Your task to perform on an android device: Search for dell alienware on amazon.com, select the first entry, and add it to the cart. Image 0: 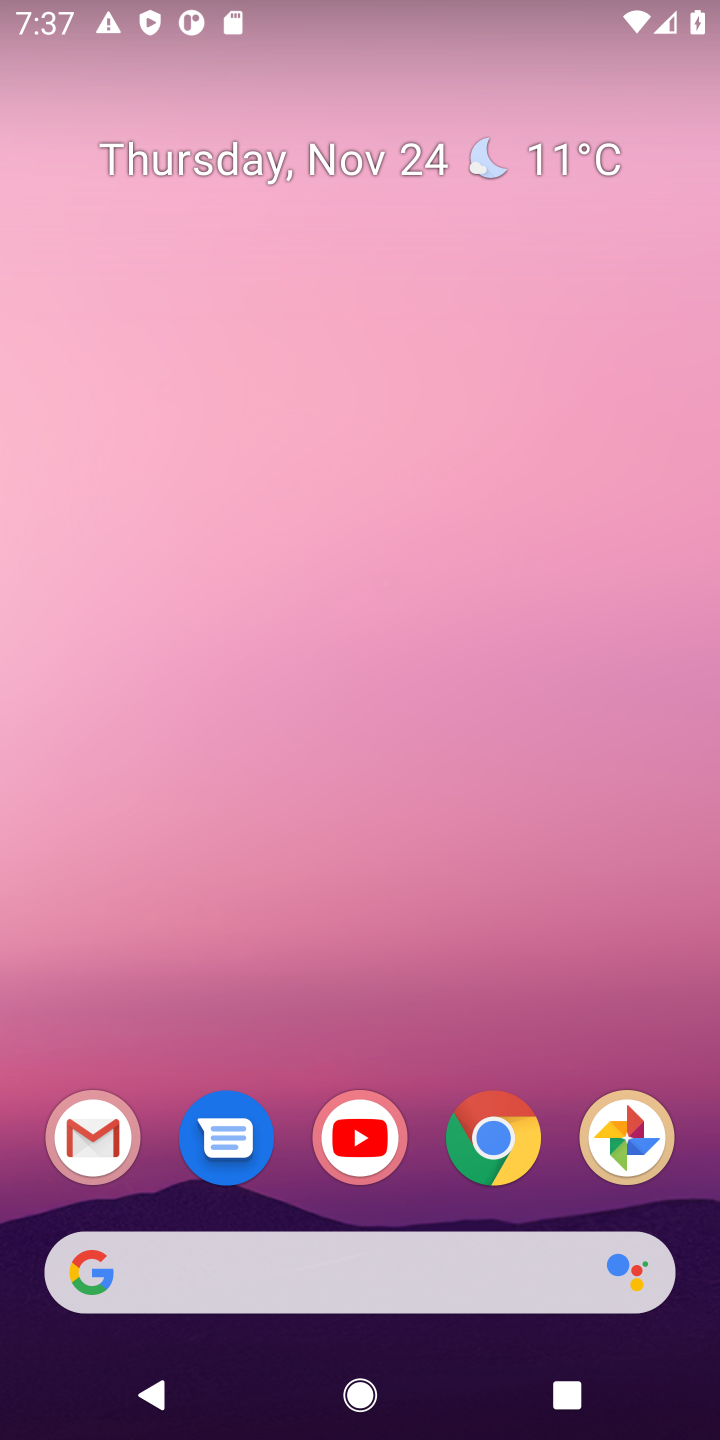
Step 0: click (395, 1258)
Your task to perform on an android device: Search for dell alienware on amazon.com, select the first entry, and add it to the cart. Image 1: 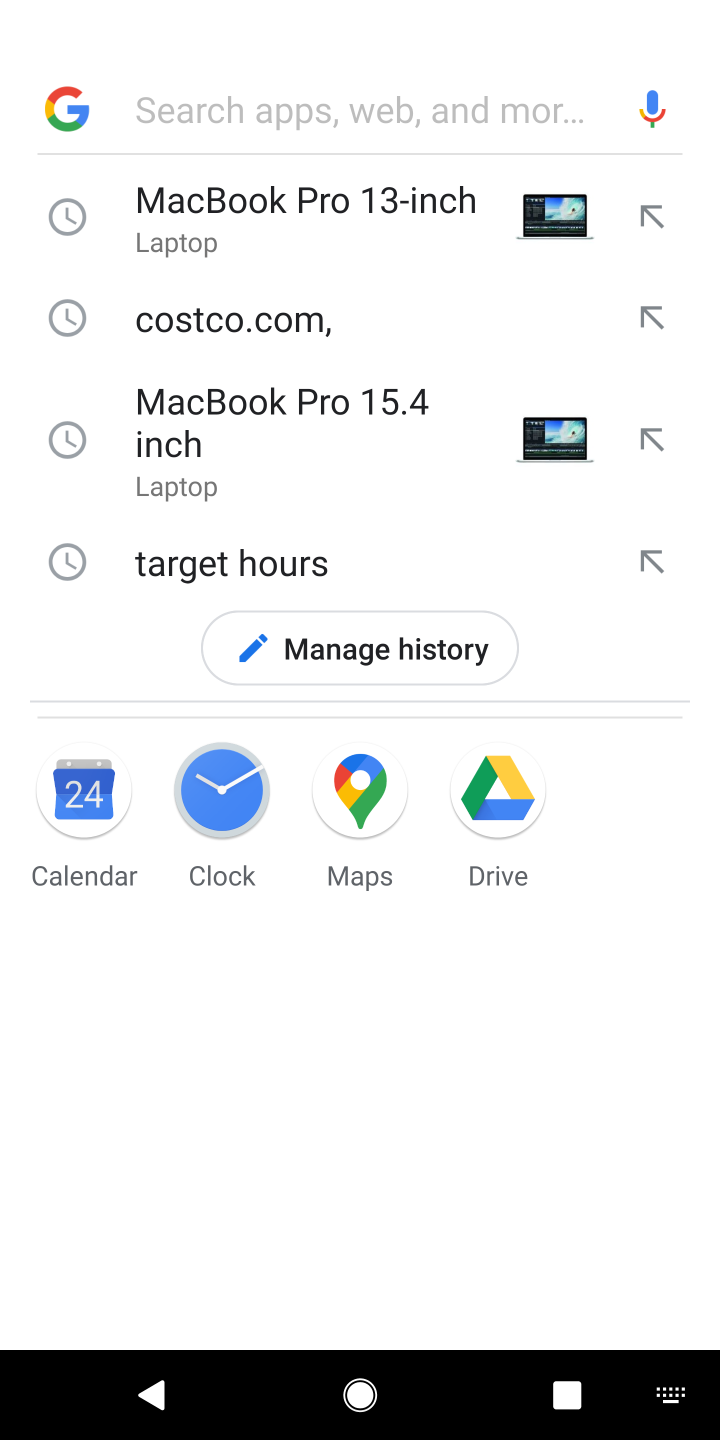
Step 1: type "amazon.com,"
Your task to perform on an android device: Search for dell alienware on amazon.com, select the first entry, and add it to the cart. Image 2: 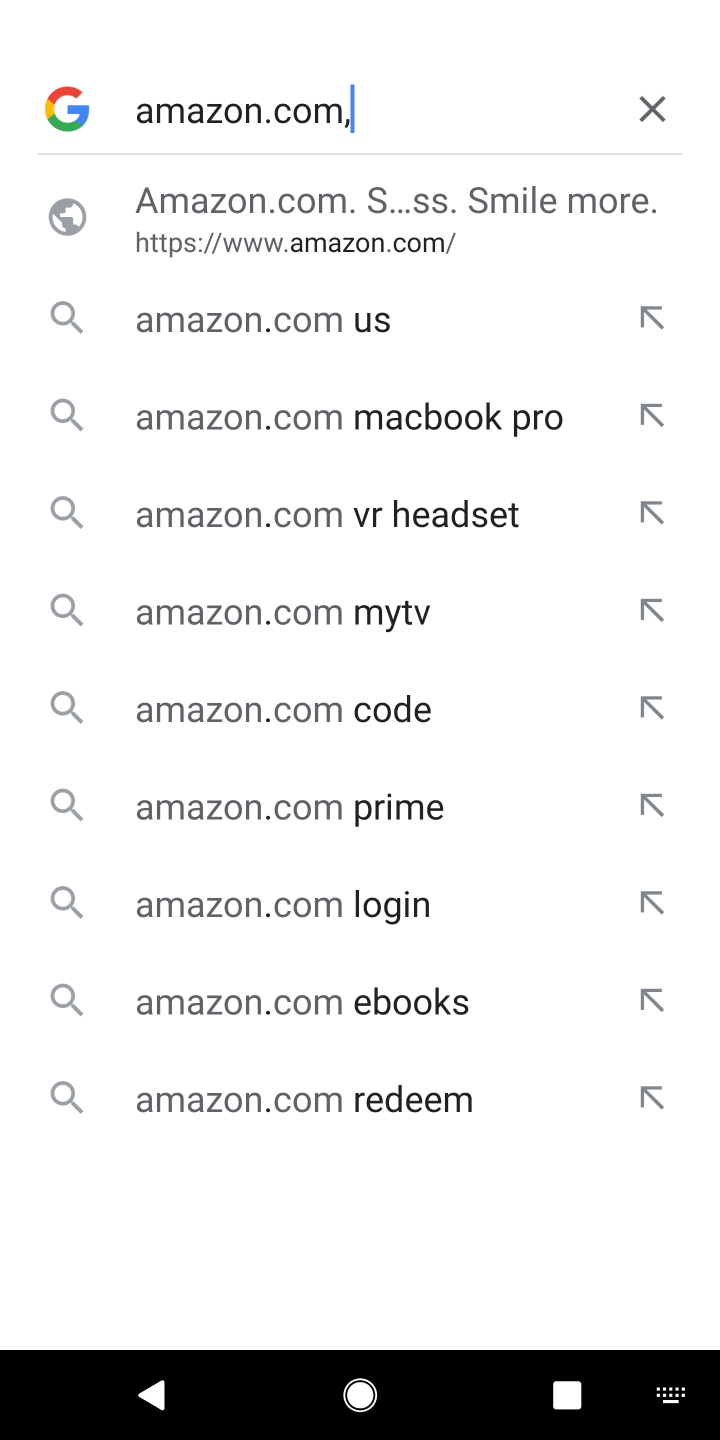
Step 2: click (355, 204)
Your task to perform on an android device: Search for dell alienware on amazon.com, select the first entry, and add it to the cart. Image 3: 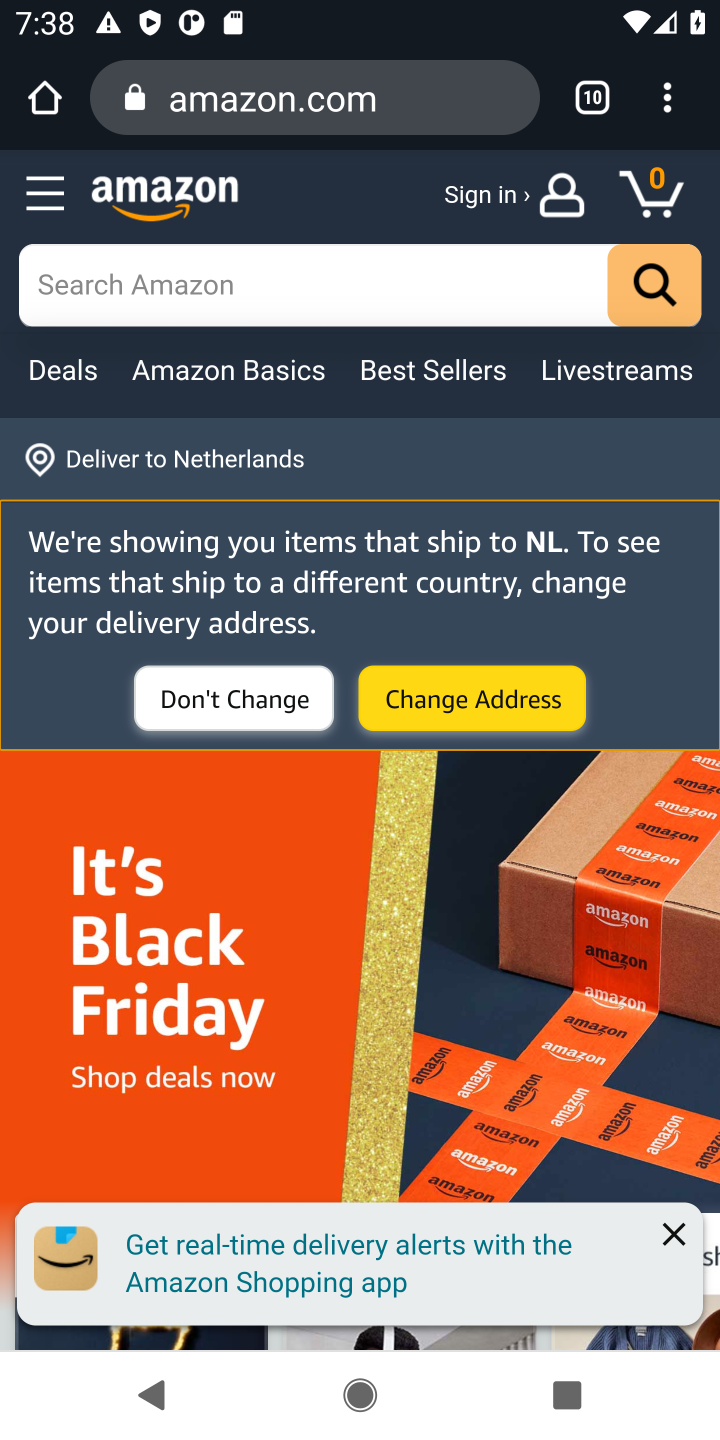
Step 3: click (294, 291)
Your task to perform on an android device: Search for dell alienware on amazon.com, select the first entry, and add it to the cart. Image 4: 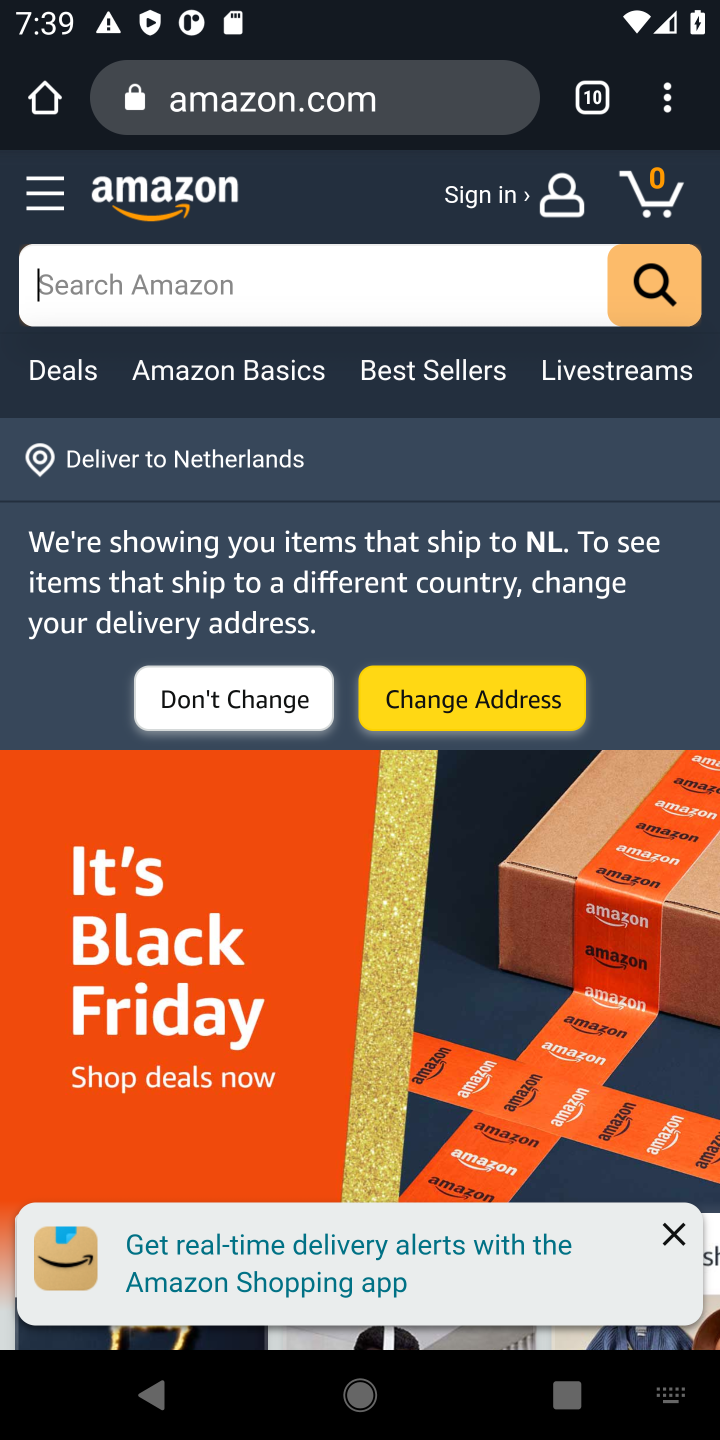
Step 4: type " dell alienware"
Your task to perform on an android device: Search for dell alienware on amazon.com, select the first entry, and add it to the cart. Image 5: 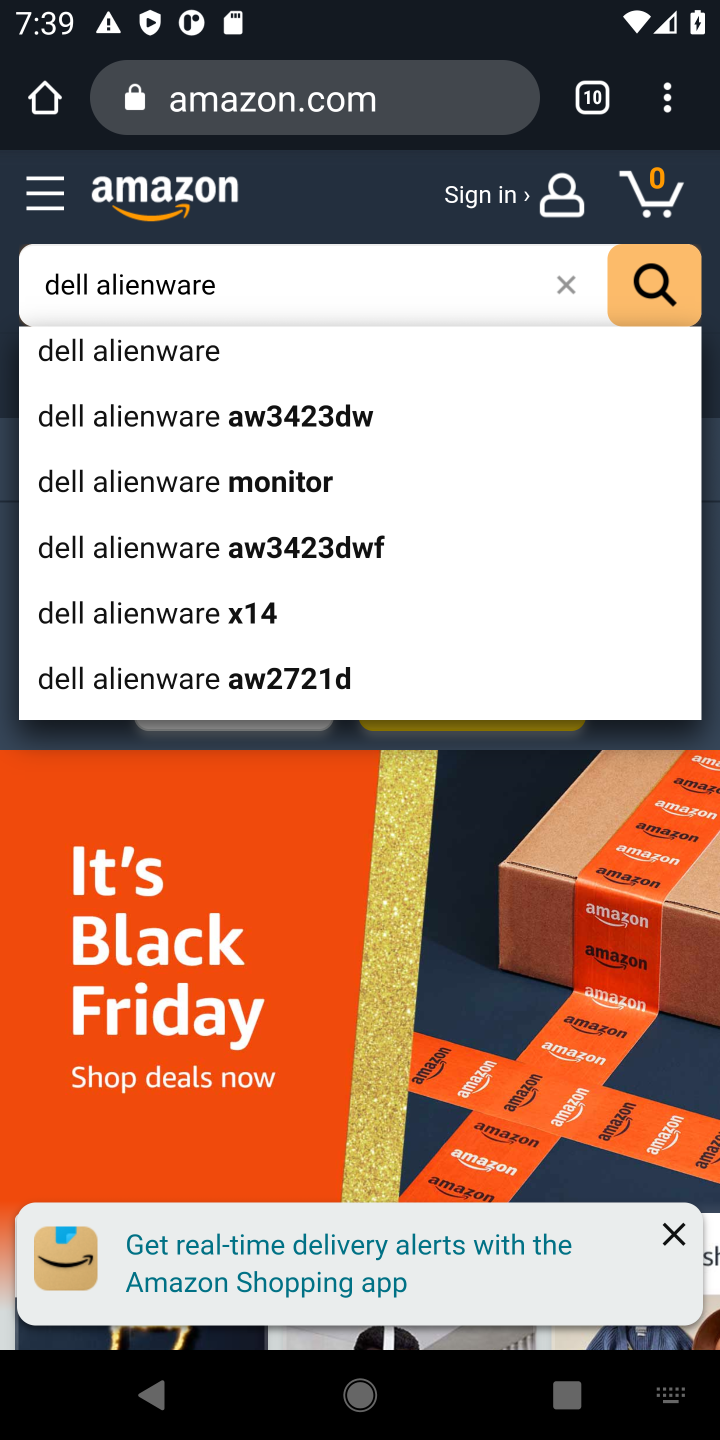
Step 5: click (135, 366)
Your task to perform on an android device: Search for dell alienware on amazon.com, select the first entry, and add it to the cart. Image 6: 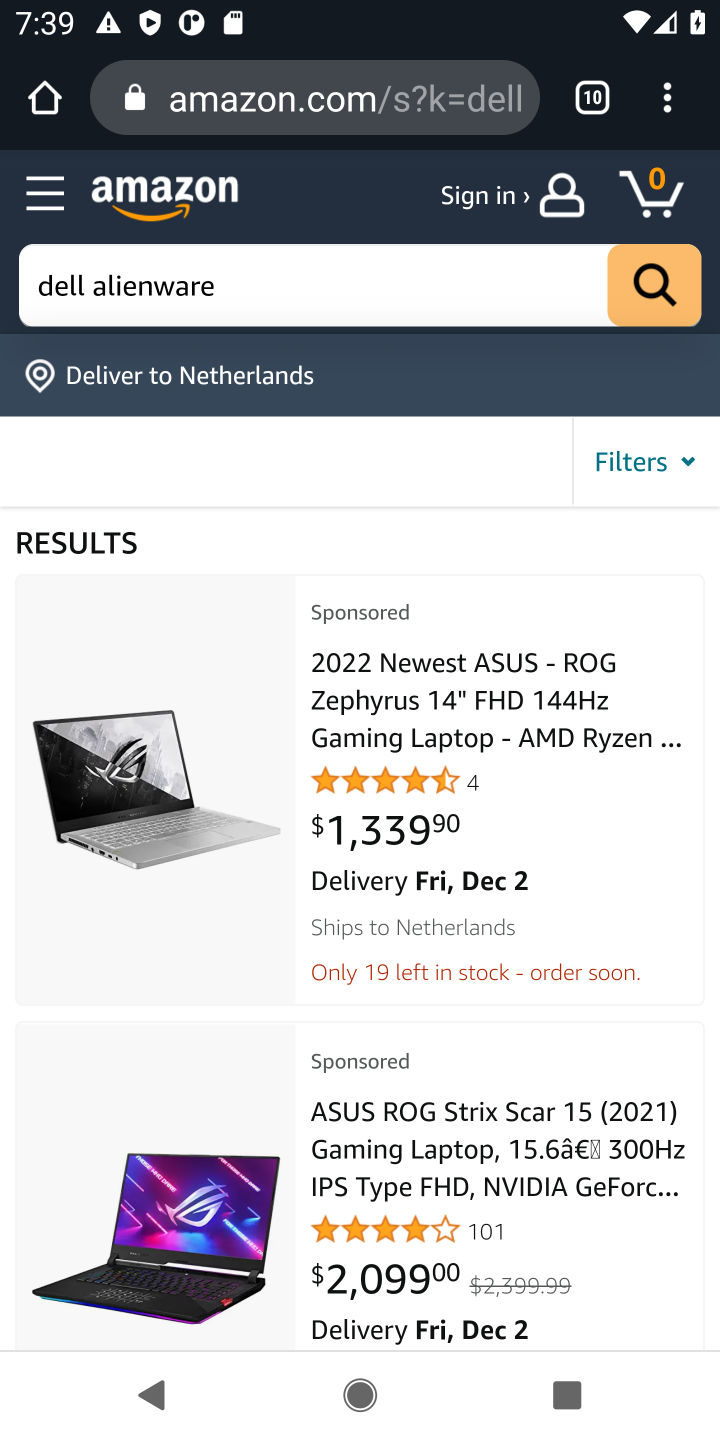
Step 6: click (393, 827)
Your task to perform on an android device: Search for dell alienware on amazon.com, select the first entry, and add it to the cart. Image 7: 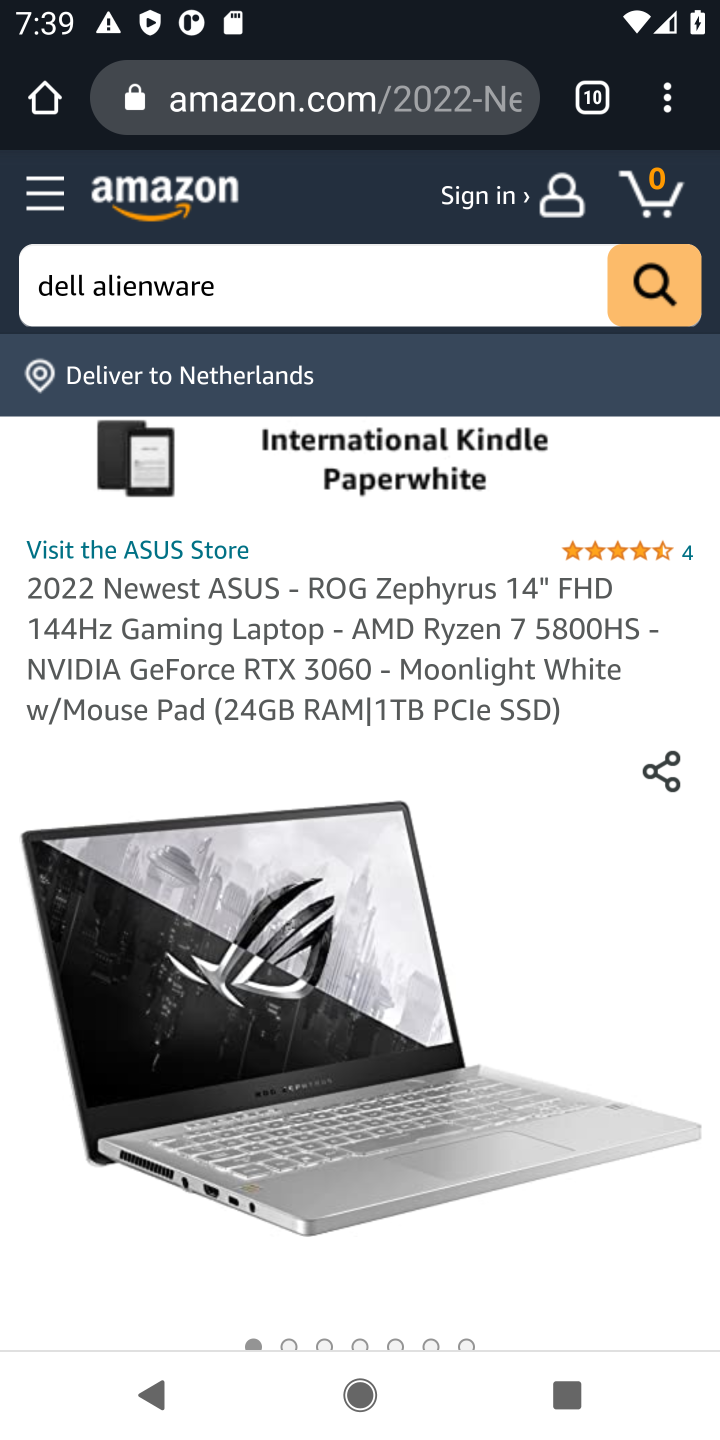
Step 7: drag from (250, 1086) to (339, 661)
Your task to perform on an android device: Search for dell alienware on amazon.com, select the first entry, and add it to the cart. Image 8: 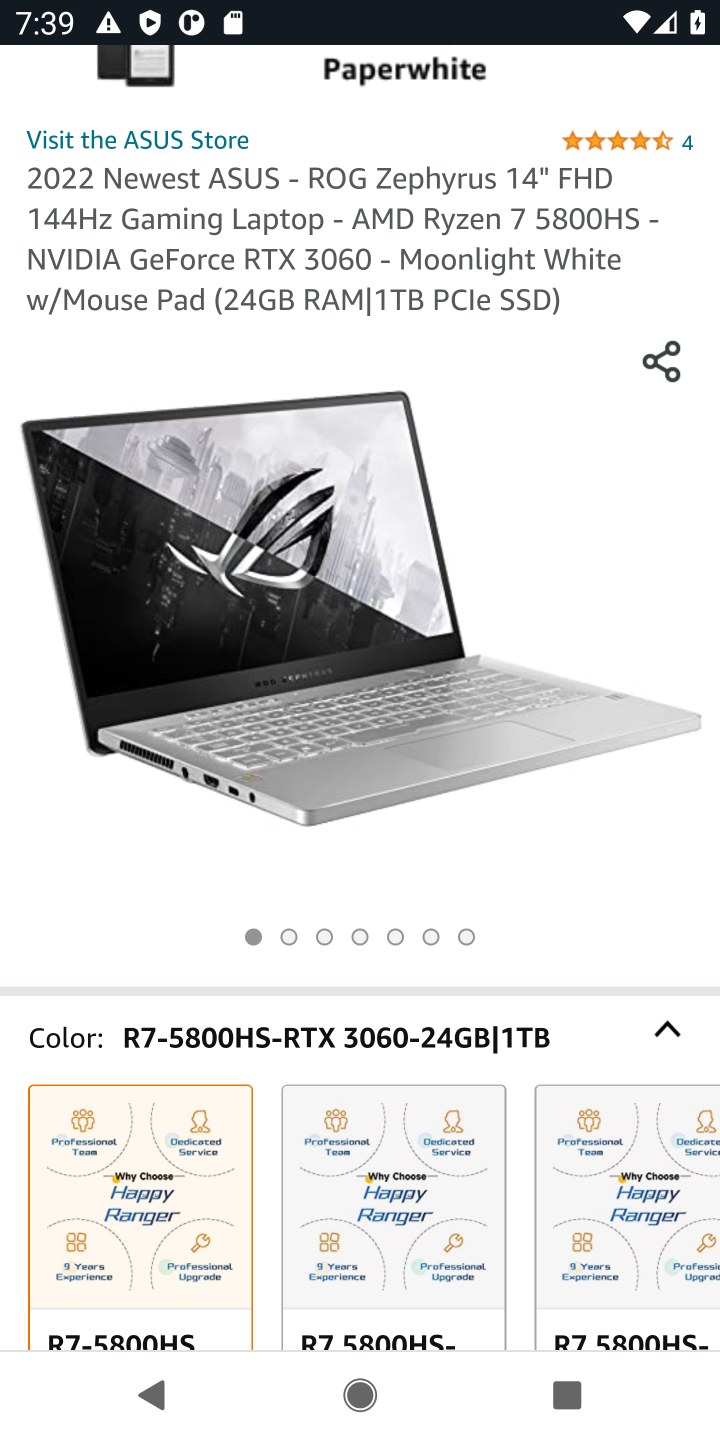
Step 8: drag from (299, 1089) to (363, 904)
Your task to perform on an android device: Search for dell alienware on amazon.com, select the first entry, and add it to the cart. Image 9: 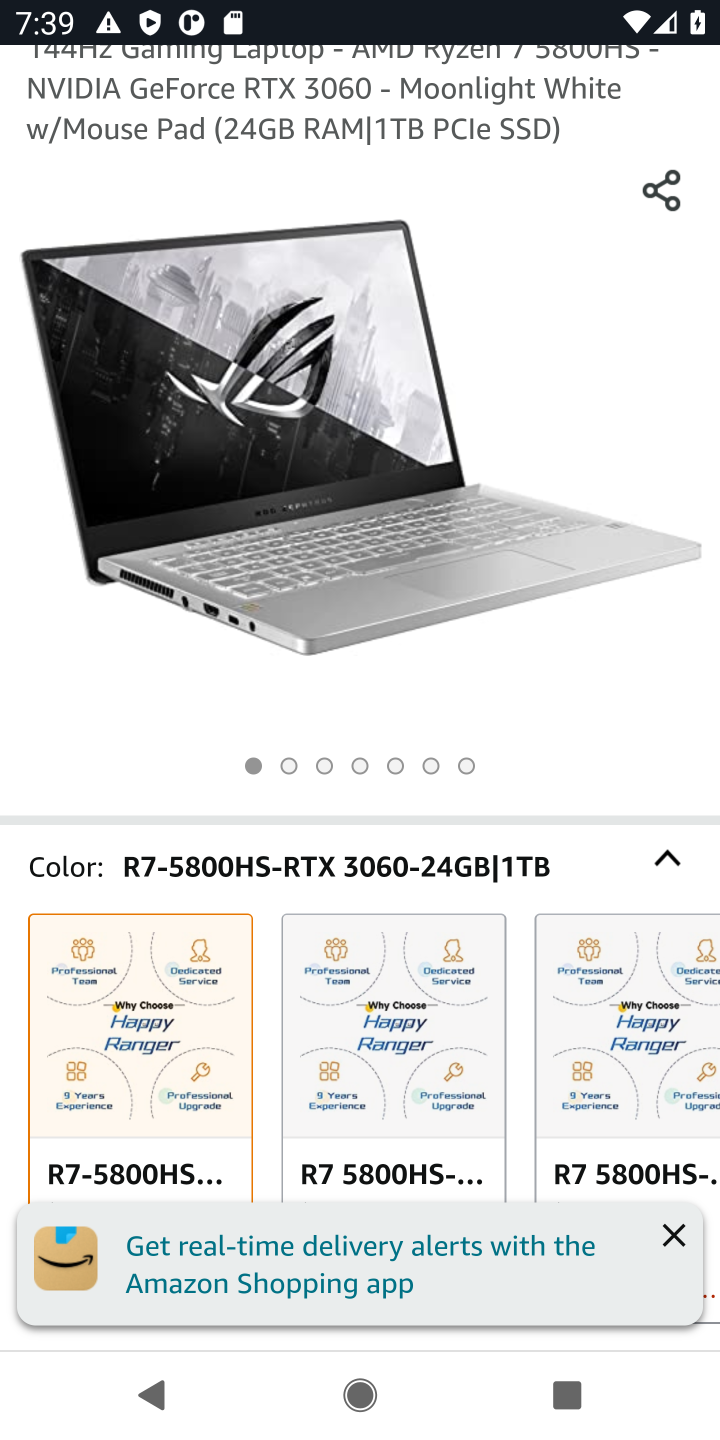
Step 9: click (670, 1230)
Your task to perform on an android device: Search for dell alienware on amazon.com, select the first entry, and add it to the cart. Image 10: 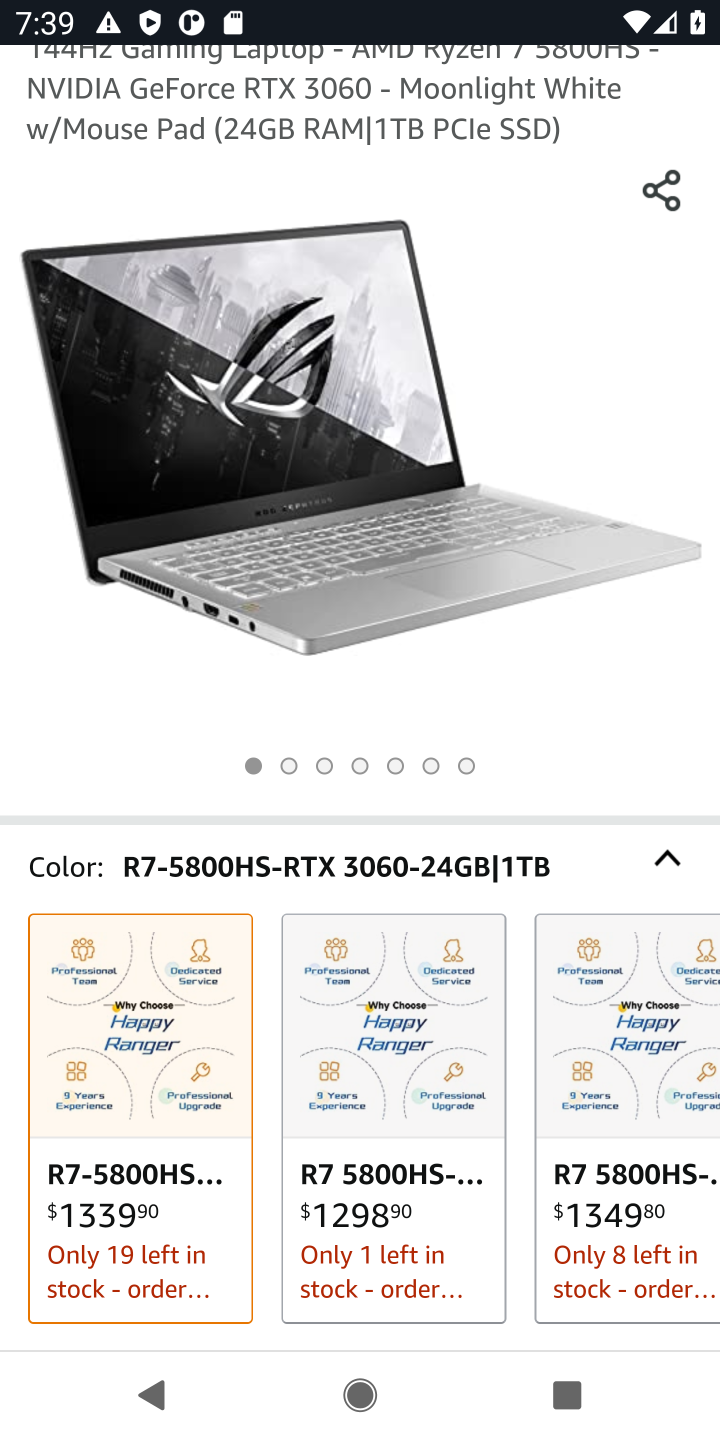
Step 10: drag from (480, 1176) to (467, 634)
Your task to perform on an android device: Search for dell alienware on amazon.com, select the first entry, and add it to the cart. Image 11: 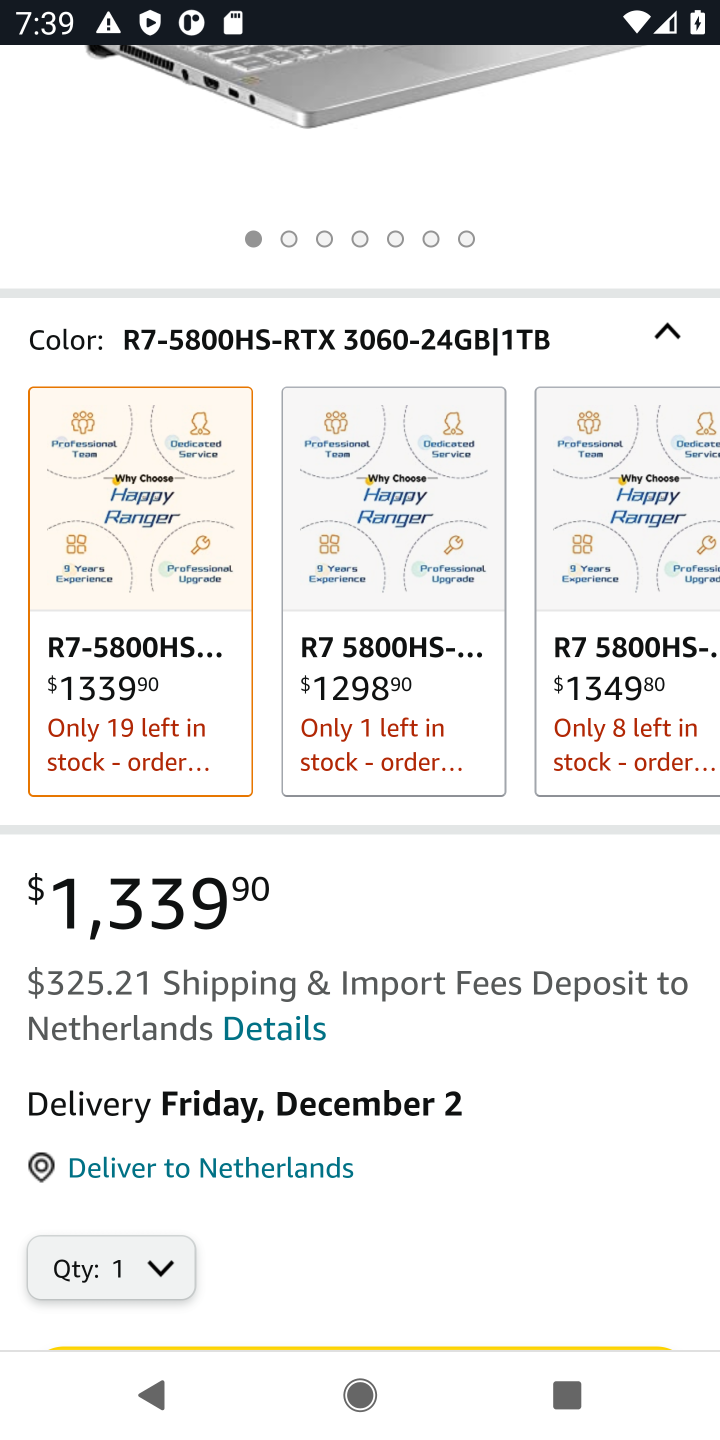
Step 11: drag from (330, 1200) to (334, 803)
Your task to perform on an android device: Search for dell alienware on amazon.com, select the first entry, and add it to the cart. Image 12: 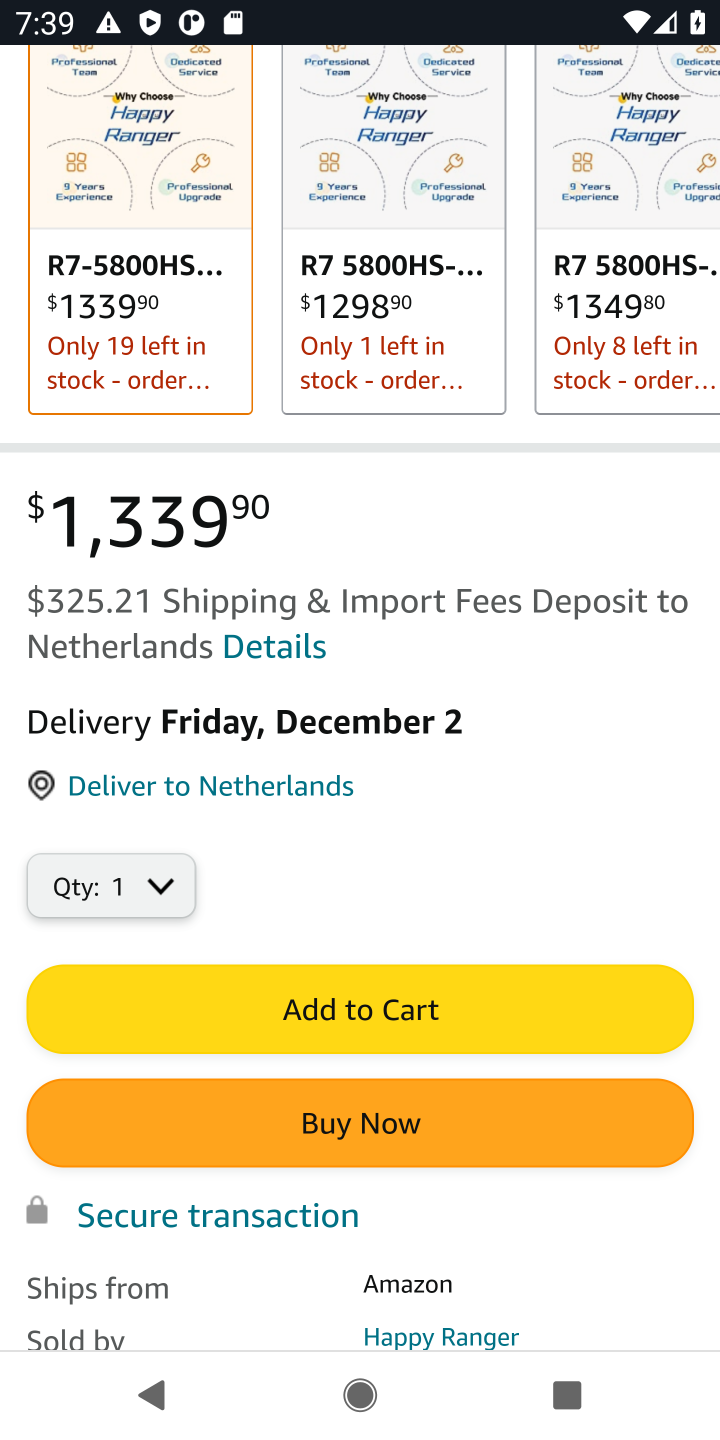
Step 12: click (338, 1014)
Your task to perform on an android device: Search for dell alienware on amazon.com, select the first entry, and add it to the cart. Image 13: 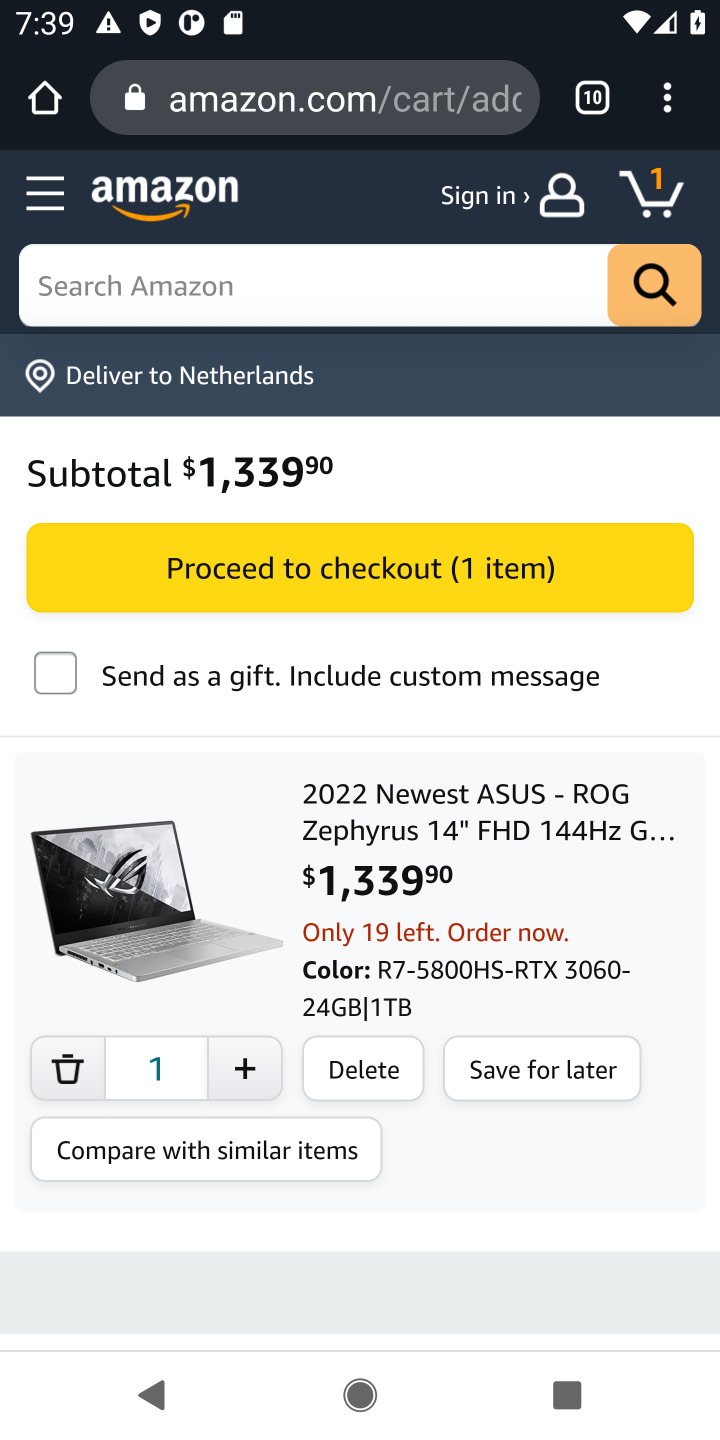
Step 13: task complete